Your task to perform on an android device: toggle priority inbox in the gmail app Image 0: 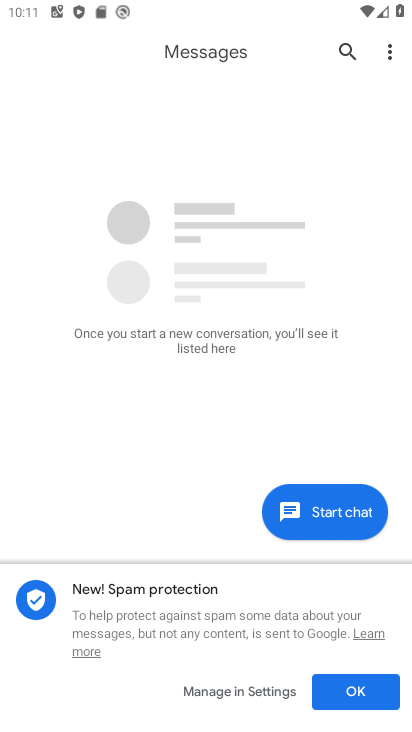
Step 0: press home button
Your task to perform on an android device: toggle priority inbox in the gmail app Image 1: 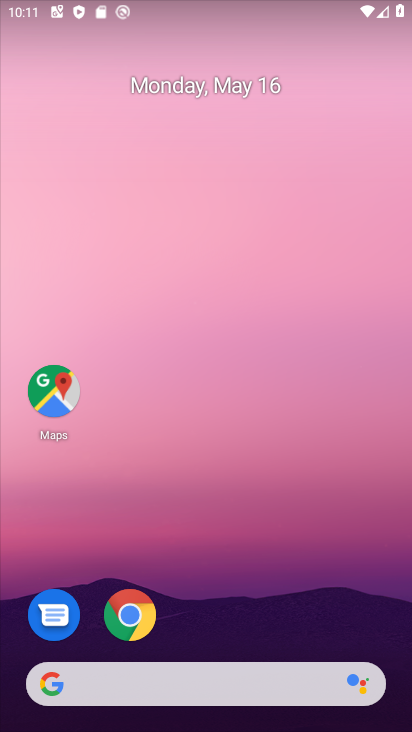
Step 1: drag from (285, 706) to (188, 193)
Your task to perform on an android device: toggle priority inbox in the gmail app Image 2: 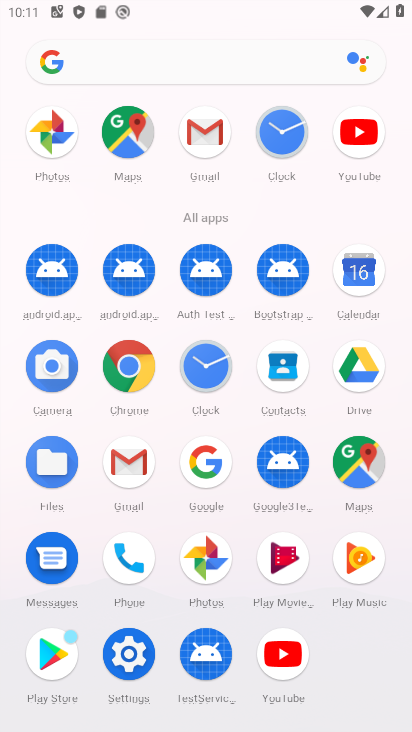
Step 2: click (132, 470)
Your task to perform on an android device: toggle priority inbox in the gmail app Image 3: 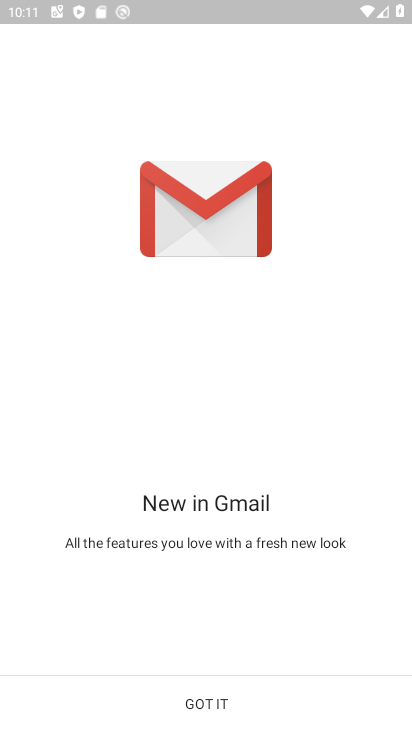
Step 3: click (186, 704)
Your task to perform on an android device: toggle priority inbox in the gmail app Image 4: 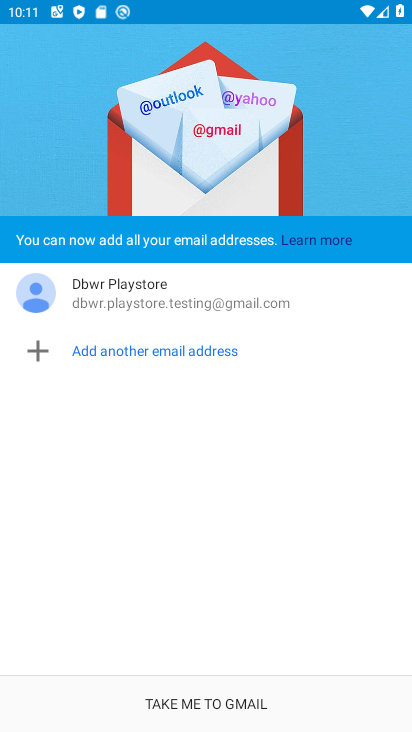
Step 4: click (166, 683)
Your task to perform on an android device: toggle priority inbox in the gmail app Image 5: 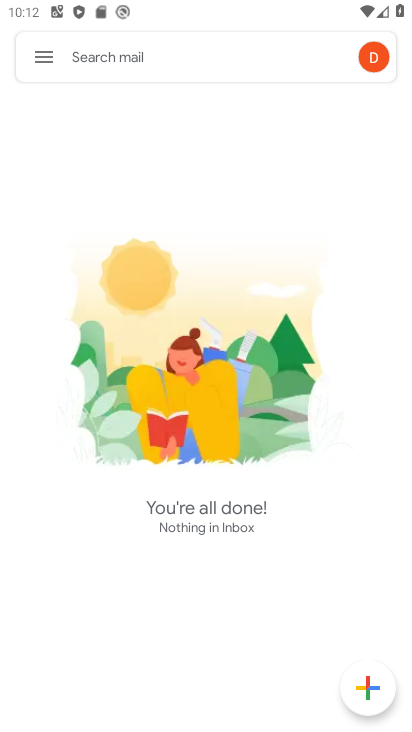
Step 5: click (47, 77)
Your task to perform on an android device: toggle priority inbox in the gmail app Image 6: 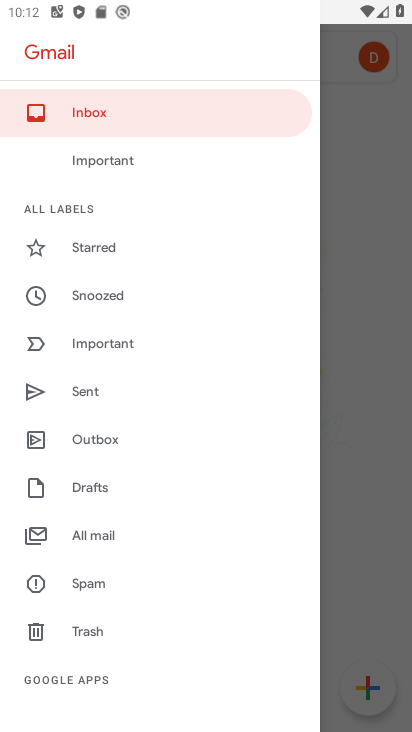
Step 6: drag from (105, 602) to (159, 495)
Your task to perform on an android device: toggle priority inbox in the gmail app Image 7: 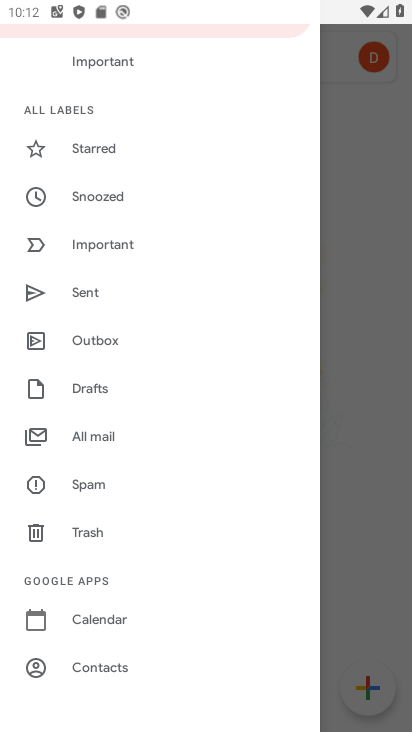
Step 7: drag from (104, 598) to (141, 512)
Your task to perform on an android device: toggle priority inbox in the gmail app Image 8: 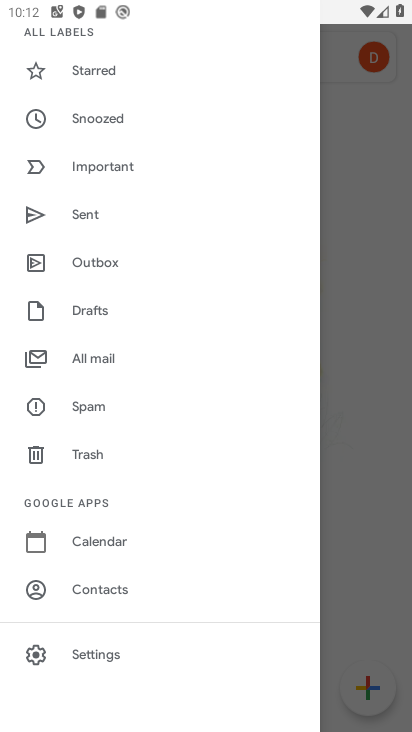
Step 8: click (98, 648)
Your task to perform on an android device: toggle priority inbox in the gmail app Image 9: 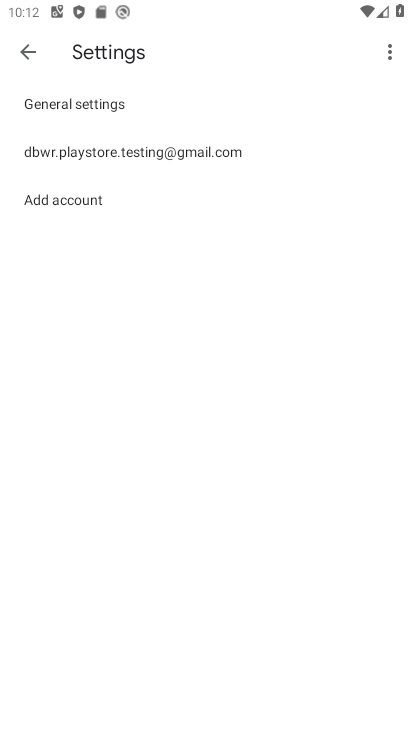
Step 9: click (92, 144)
Your task to perform on an android device: toggle priority inbox in the gmail app Image 10: 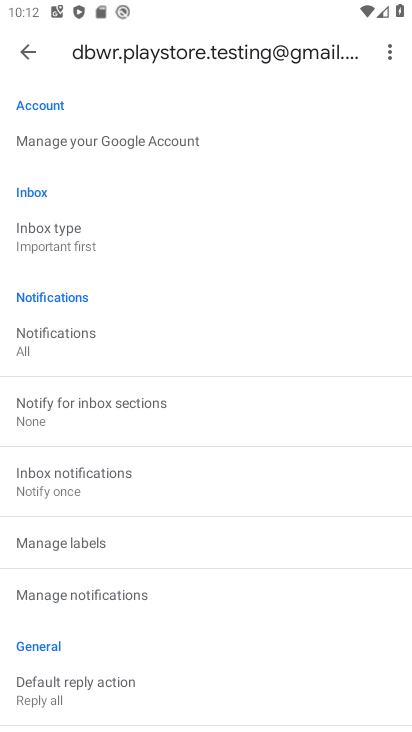
Step 10: click (115, 233)
Your task to perform on an android device: toggle priority inbox in the gmail app Image 11: 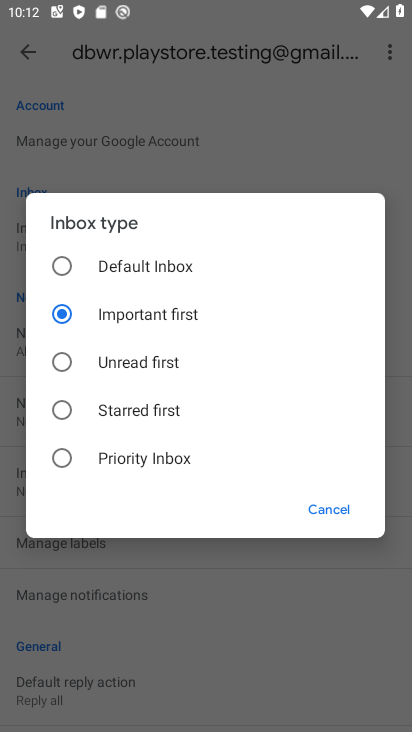
Step 11: task complete